Your task to perform on an android device: make emails show in primary in the gmail app Image 0: 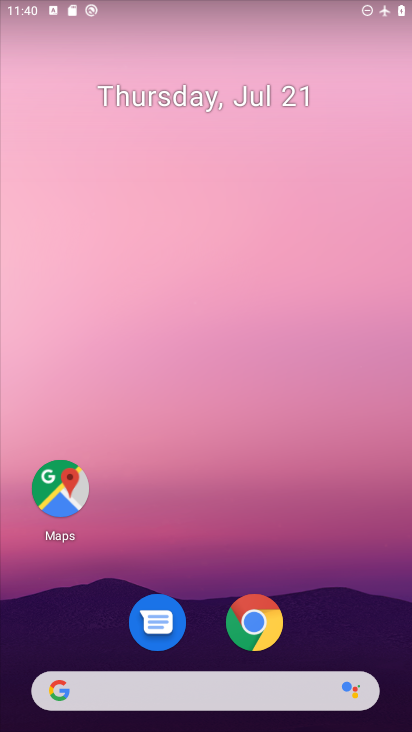
Step 0: drag from (176, 717) to (190, 154)
Your task to perform on an android device: make emails show in primary in the gmail app Image 1: 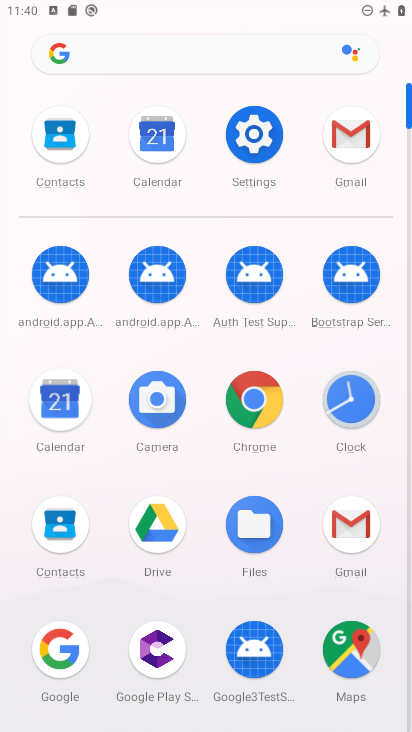
Step 1: click (350, 139)
Your task to perform on an android device: make emails show in primary in the gmail app Image 2: 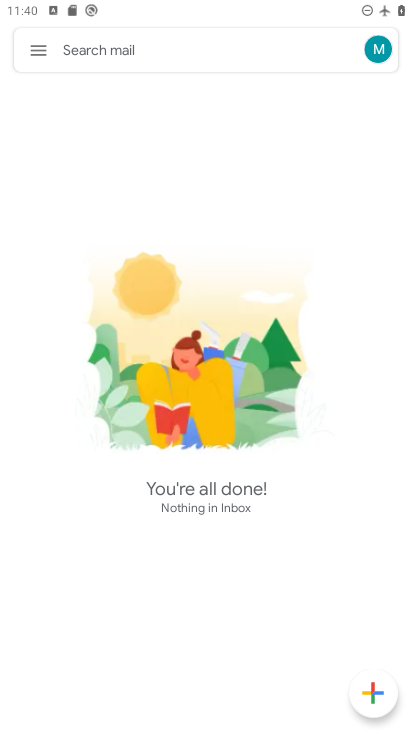
Step 2: click (35, 44)
Your task to perform on an android device: make emails show in primary in the gmail app Image 3: 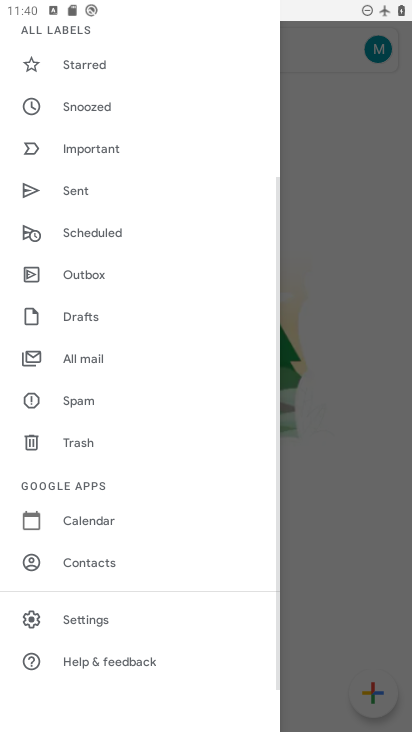
Step 3: click (97, 614)
Your task to perform on an android device: make emails show in primary in the gmail app Image 4: 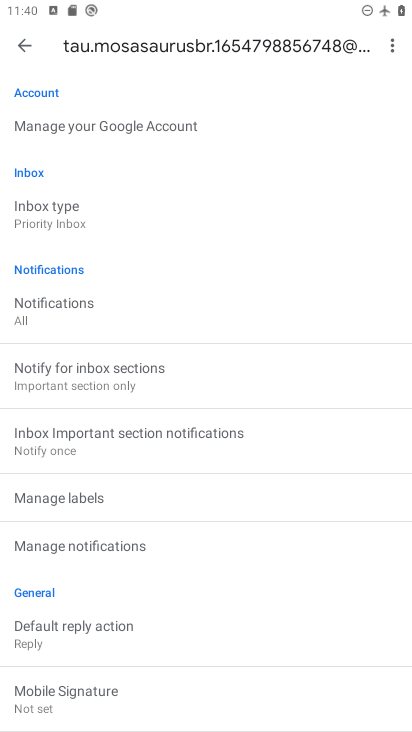
Step 4: click (61, 212)
Your task to perform on an android device: make emails show in primary in the gmail app Image 5: 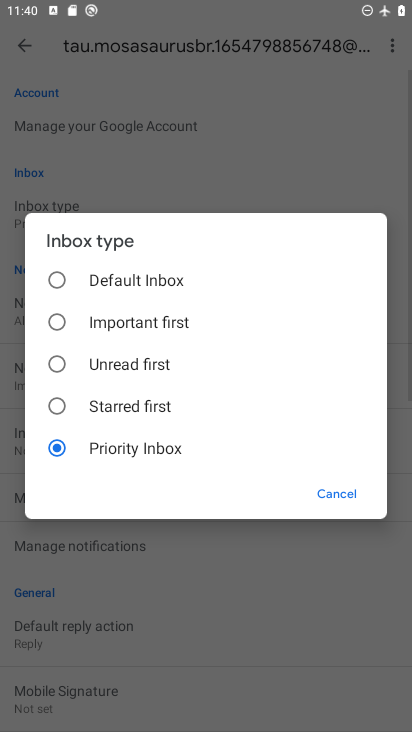
Step 5: click (156, 281)
Your task to perform on an android device: make emails show in primary in the gmail app Image 6: 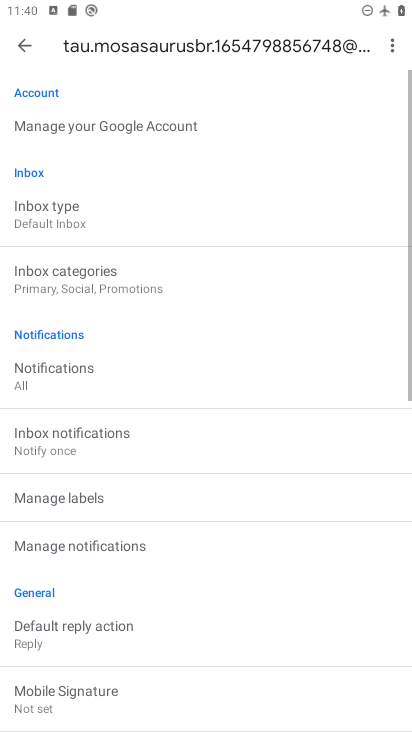
Step 6: click (83, 277)
Your task to perform on an android device: make emails show in primary in the gmail app Image 7: 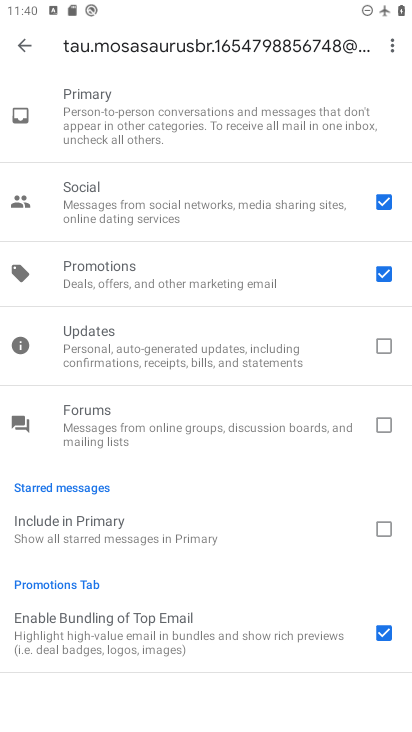
Step 7: click (376, 200)
Your task to perform on an android device: make emails show in primary in the gmail app Image 8: 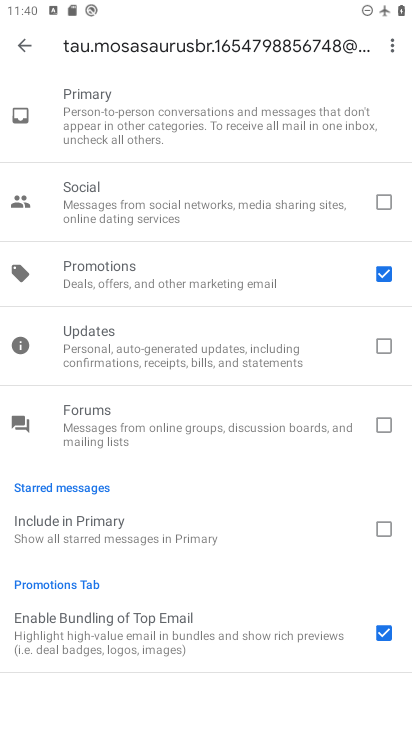
Step 8: click (382, 266)
Your task to perform on an android device: make emails show in primary in the gmail app Image 9: 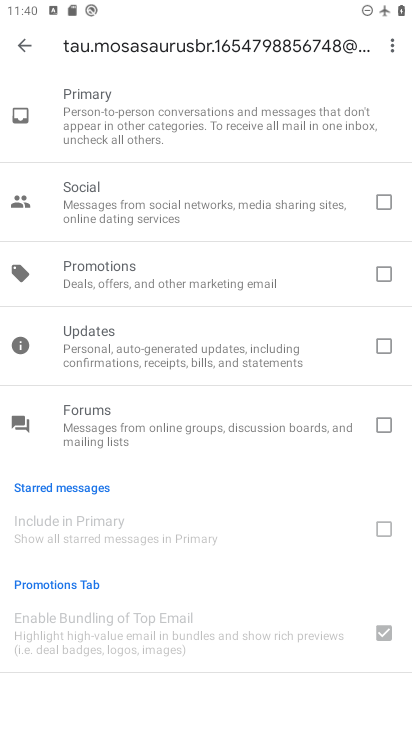
Step 9: task complete